Your task to perform on an android device: Open Google Maps Image 0: 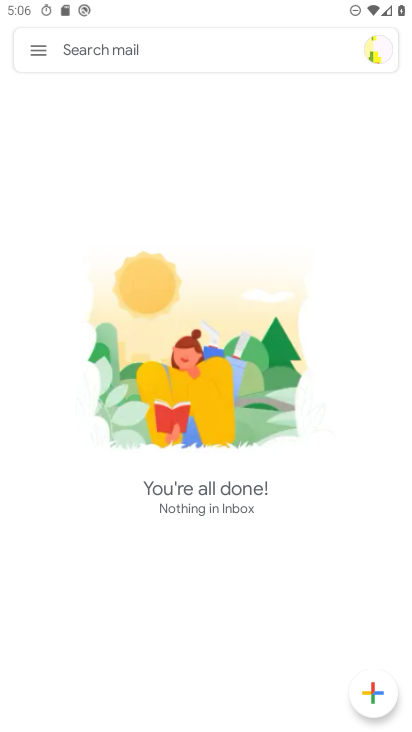
Step 0: press home button
Your task to perform on an android device: Open Google Maps Image 1: 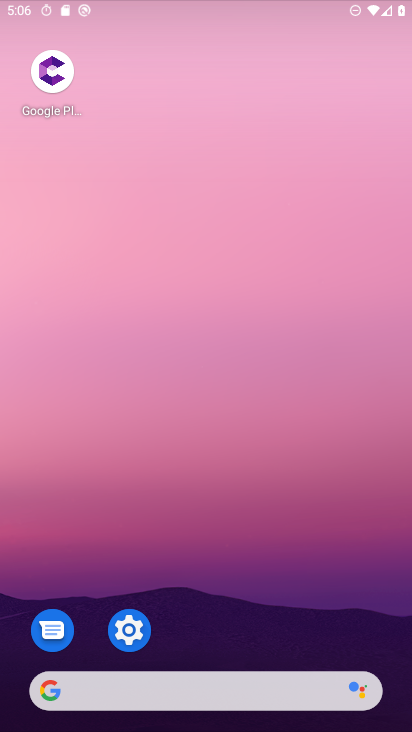
Step 1: drag from (206, 545) to (152, 12)
Your task to perform on an android device: Open Google Maps Image 2: 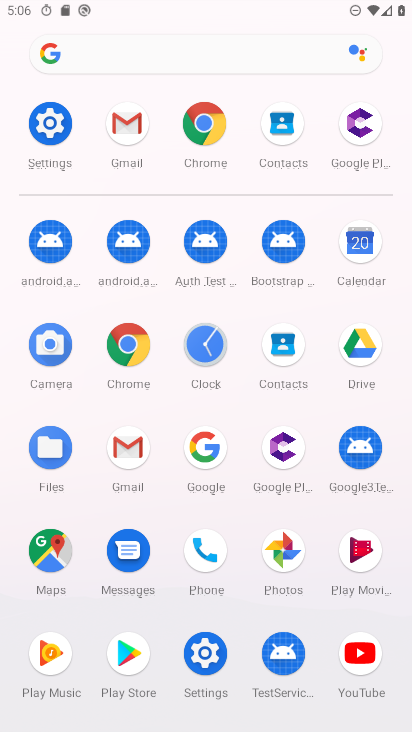
Step 2: click (42, 545)
Your task to perform on an android device: Open Google Maps Image 3: 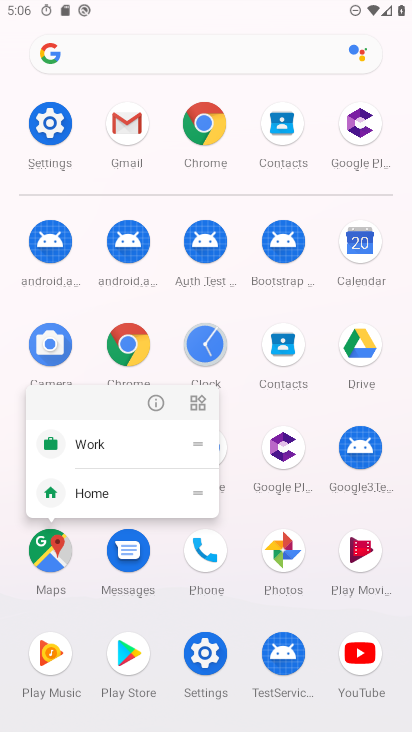
Step 3: click (405, 394)
Your task to perform on an android device: Open Google Maps Image 4: 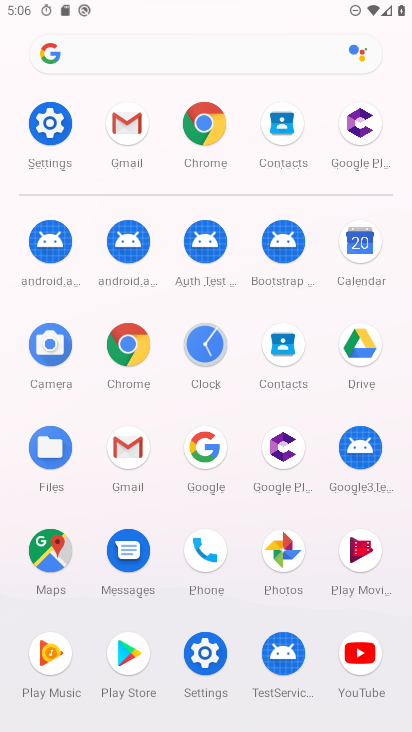
Step 4: click (59, 564)
Your task to perform on an android device: Open Google Maps Image 5: 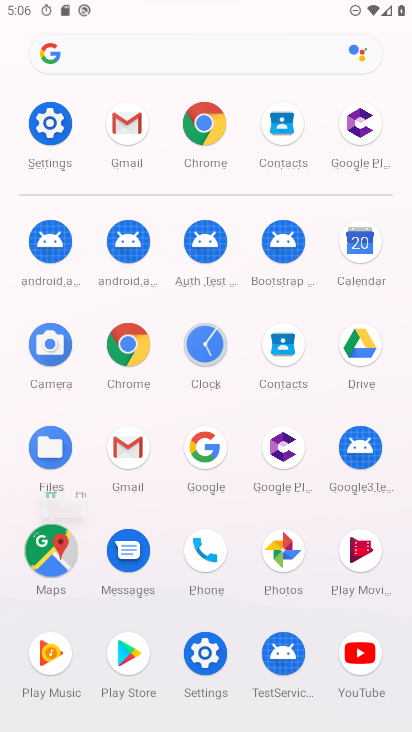
Step 5: click (56, 550)
Your task to perform on an android device: Open Google Maps Image 6: 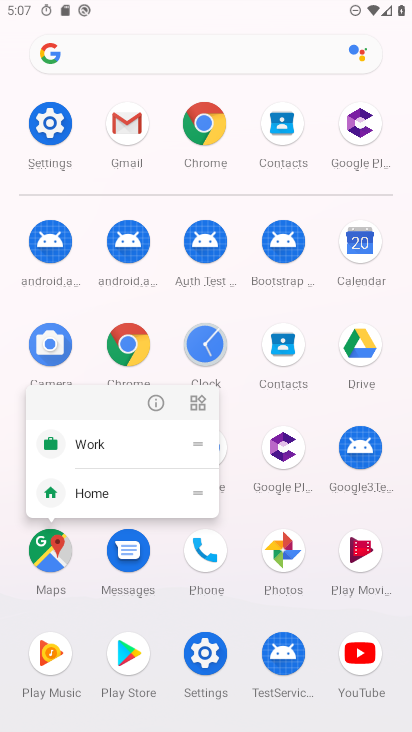
Step 6: click (39, 562)
Your task to perform on an android device: Open Google Maps Image 7: 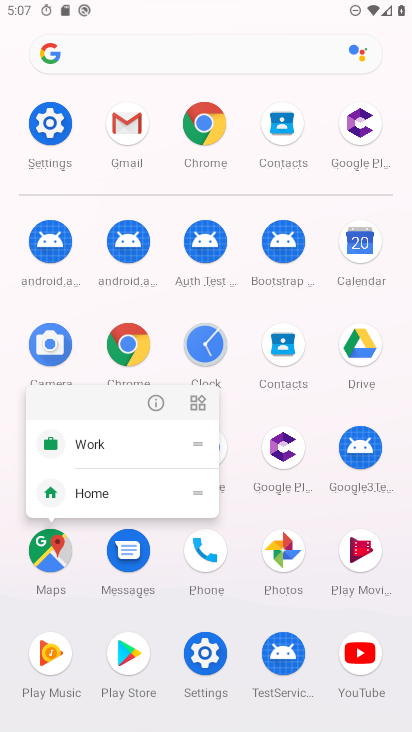
Step 7: click (39, 561)
Your task to perform on an android device: Open Google Maps Image 8: 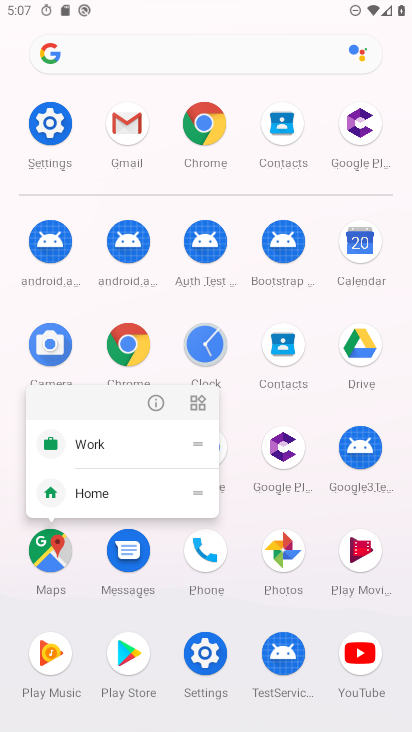
Step 8: drag from (49, 548) to (4, 549)
Your task to perform on an android device: Open Google Maps Image 9: 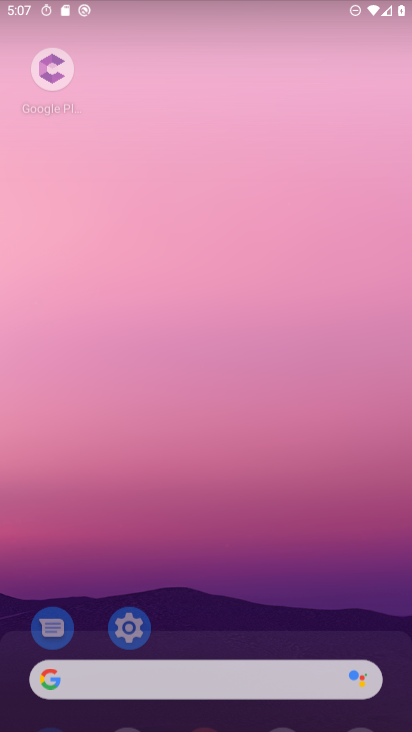
Step 9: click (65, 559)
Your task to perform on an android device: Open Google Maps Image 10: 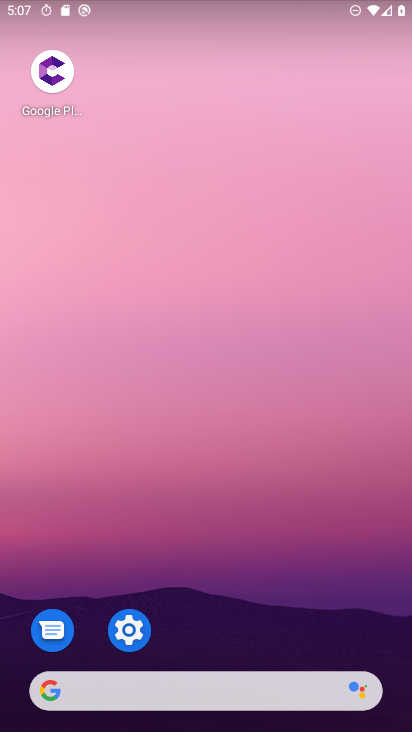
Step 10: drag from (299, 652) to (243, 38)
Your task to perform on an android device: Open Google Maps Image 11: 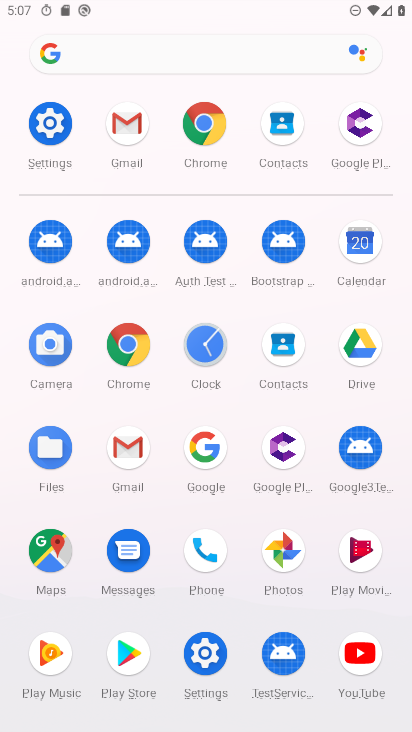
Step 11: click (39, 538)
Your task to perform on an android device: Open Google Maps Image 12: 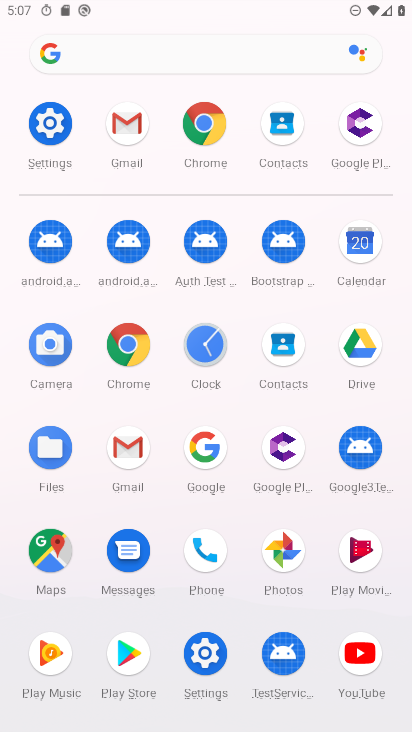
Step 12: click (39, 538)
Your task to perform on an android device: Open Google Maps Image 13: 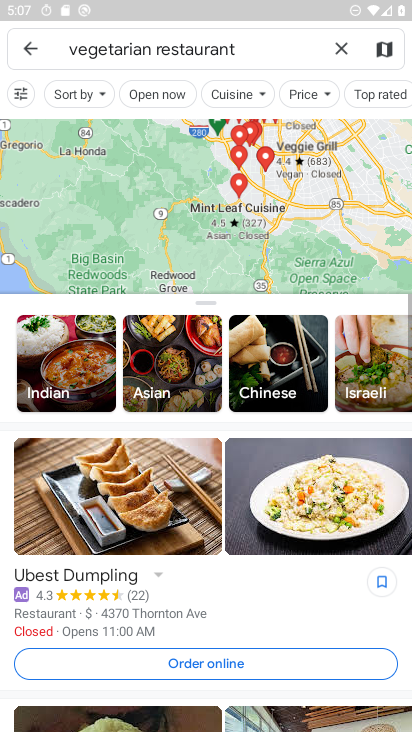
Step 13: click (333, 47)
Your task to perform on an android device: Open Google Maps Image 14: 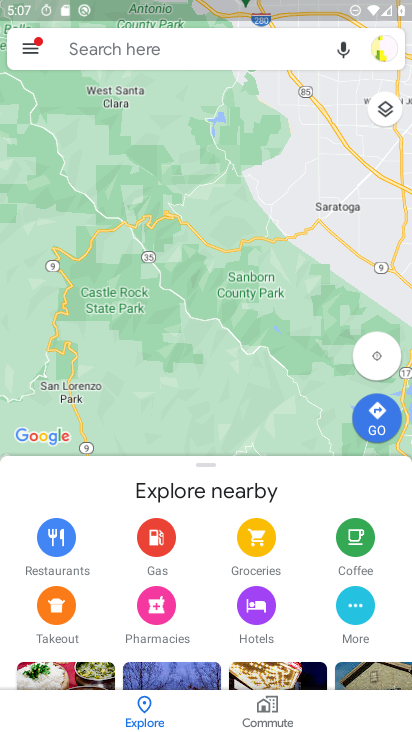
Step 14: task complete